Your task to perform on an android device: turn off location Image 0: 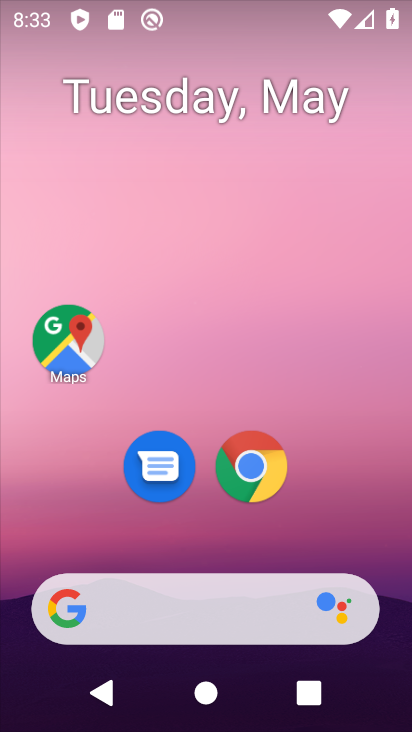
Step 0: drag from (207, 539) to (176, 10)
Your task to perform on an android device: turn off location Image 1: 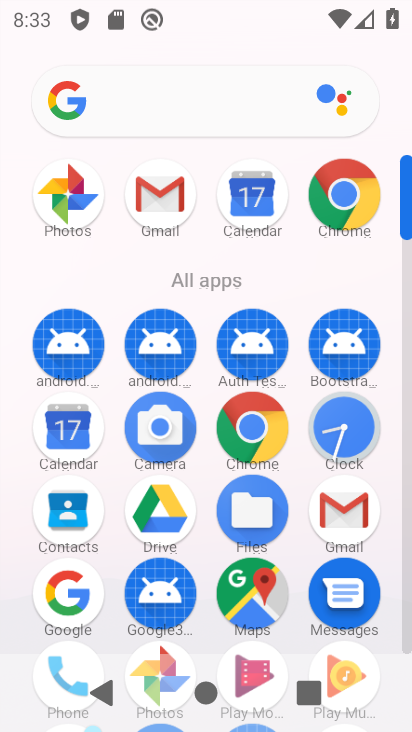
Step 1: drag from (207, 548) to (181, 146)
Your task to perform on an android device: turn off location Image 2: 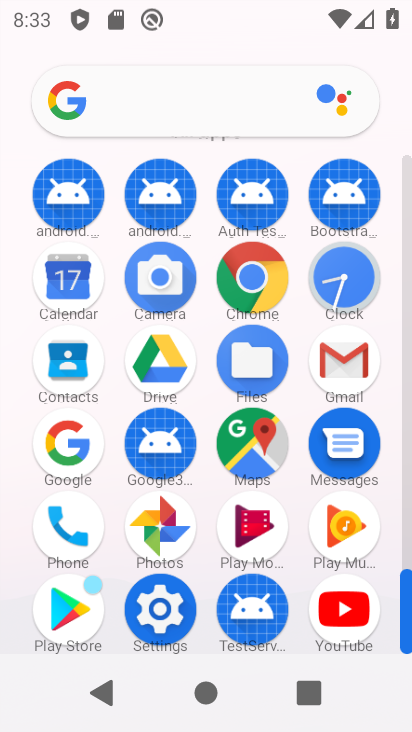
Step 2: click (159, 605)
Your task to perform on an android device: turn off location Image 3: 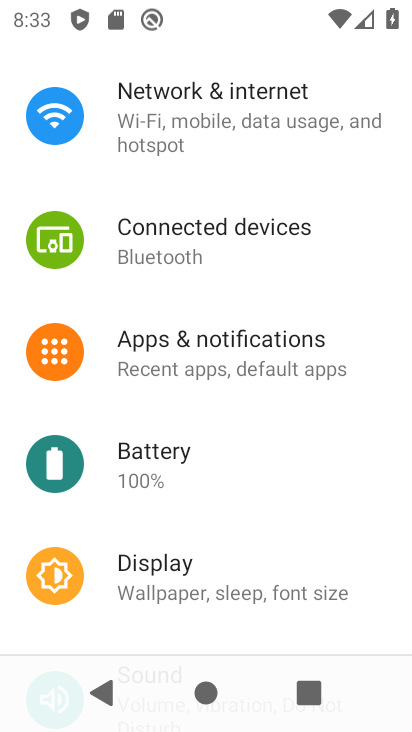
Step 3: drag from (207, 623) to (203, 121)
Your task to perform on an android device: turn off location Image 4: 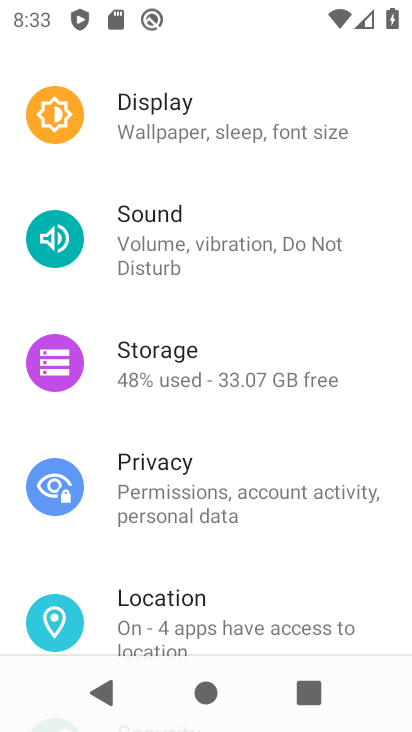
Step 4: click (224, 607)
Your task to perform on an android device: turn off location Image 5: 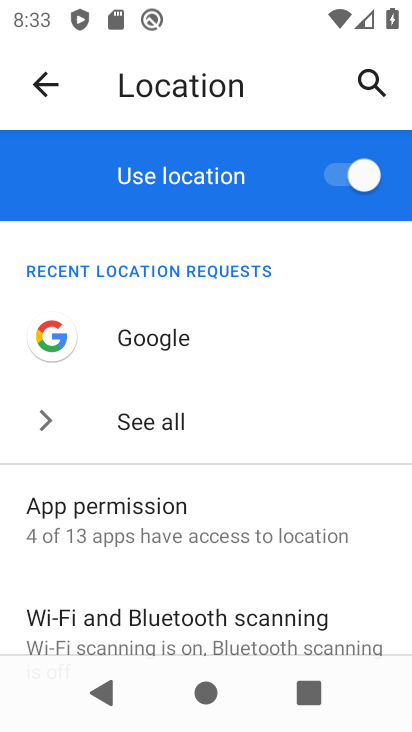
Step 5: click (340, 181)
Your task to perform on an android device: turn off location Image 6: 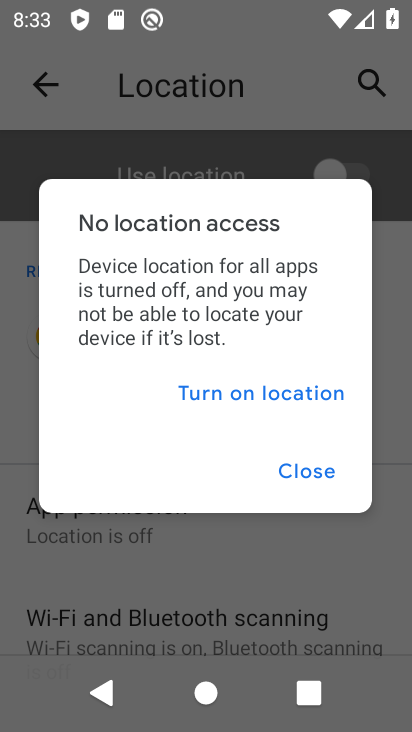
Step 6: click (312, 466)
Your task to perform on an android device: turn off location Image 7: 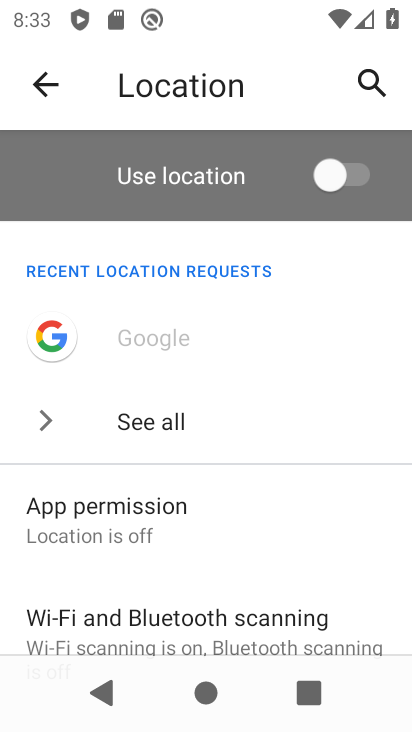
Step 7: task complete